Your task to perform on an android device: Go to privacy settings Image 0: 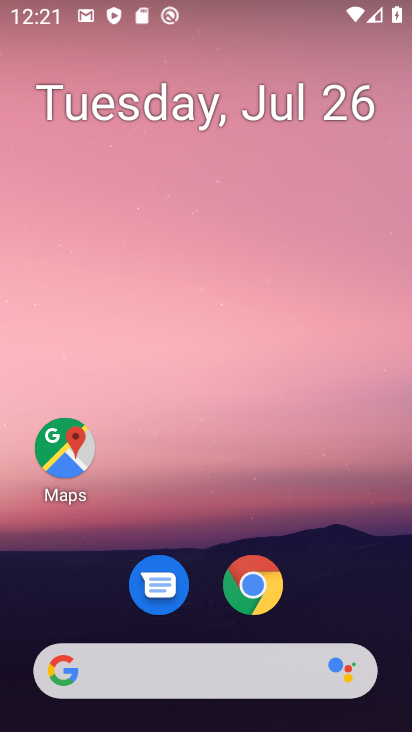
Step 0: press home button
Your task to perform on an android device: Go to privacy settings Image 1: 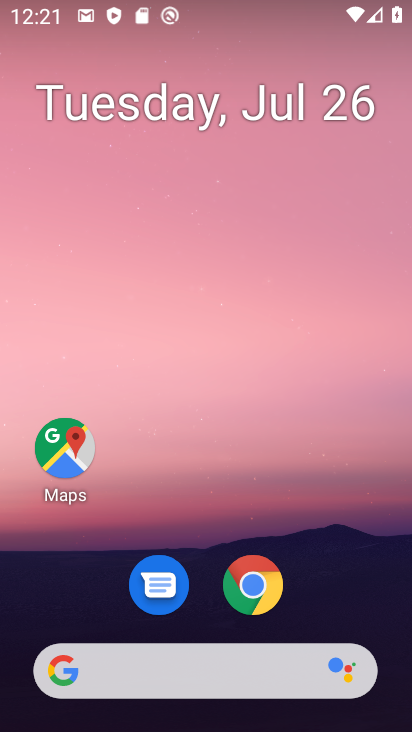
Step 1: drag from (199, 663) to (258, 110)
Your task to perform on an android device: Go to privacy settings Image 2: 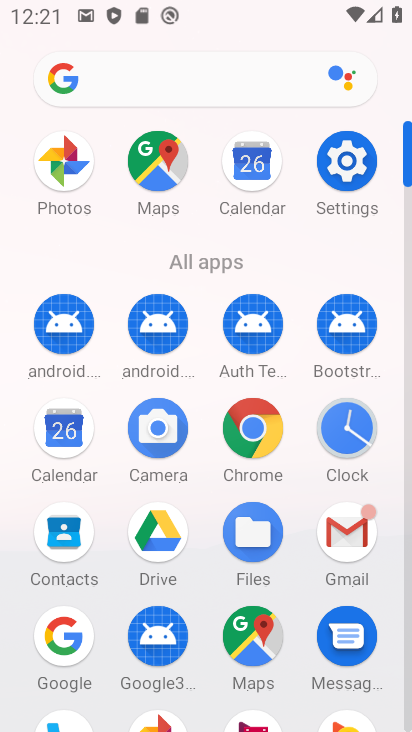
Step 2: click (351, 166)
Your task to perform on an android device: Go to privacy settings Image 3: 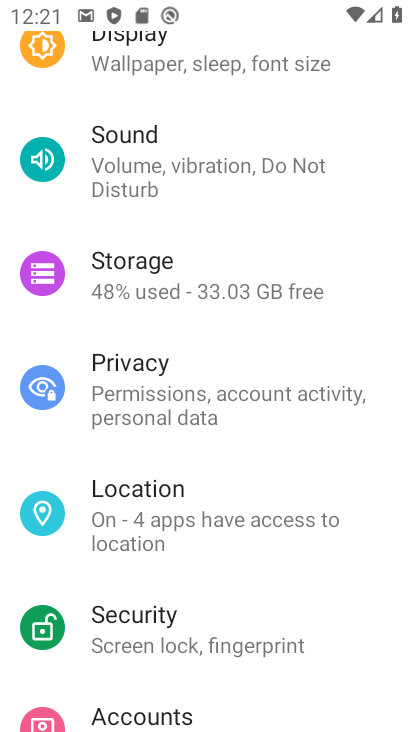
Step 3: click (179, 385)
Your task to perform on an android device: Go to privacy settings Image 4: 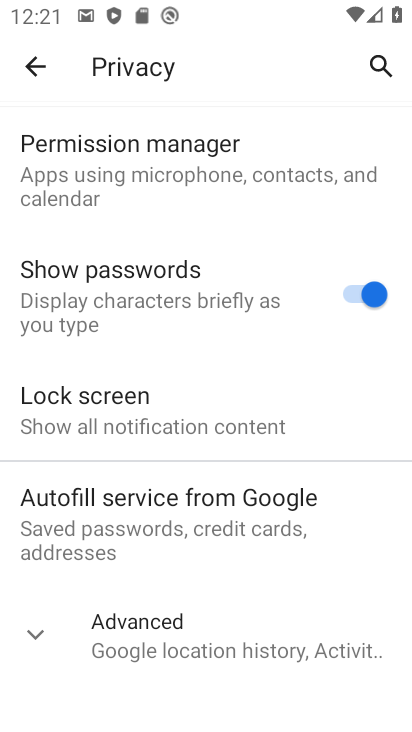
Step 4: task complete